Your task to perform on an android device: Go to Google maps Image 0: 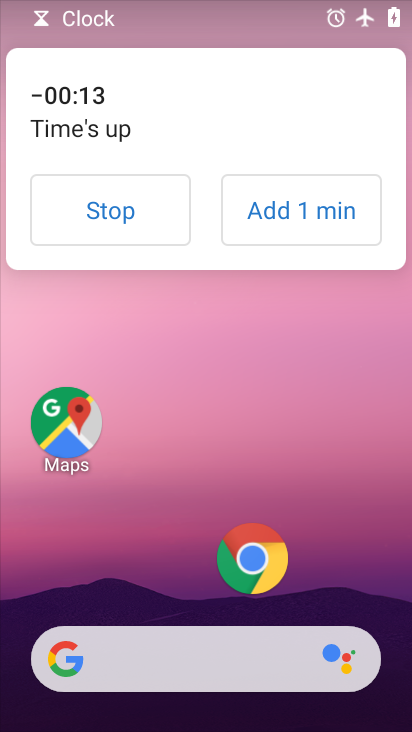
Step 0: press home button
Your task to perform on an android device: Go to Google maps Image 1: 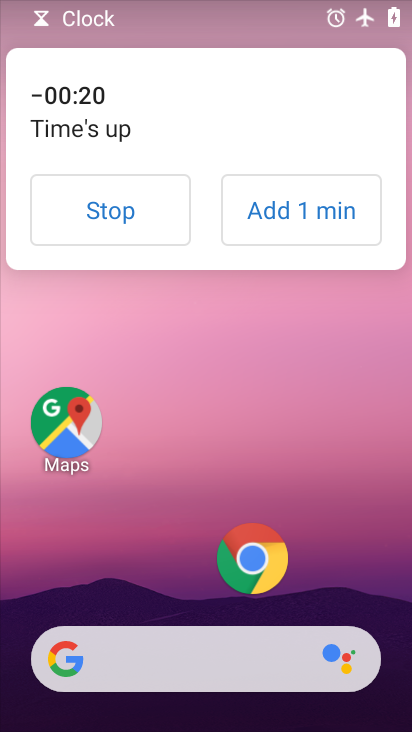
Step 1: click (132, 214)
Your task to perform on an android device: Go to Google maps Image 2: 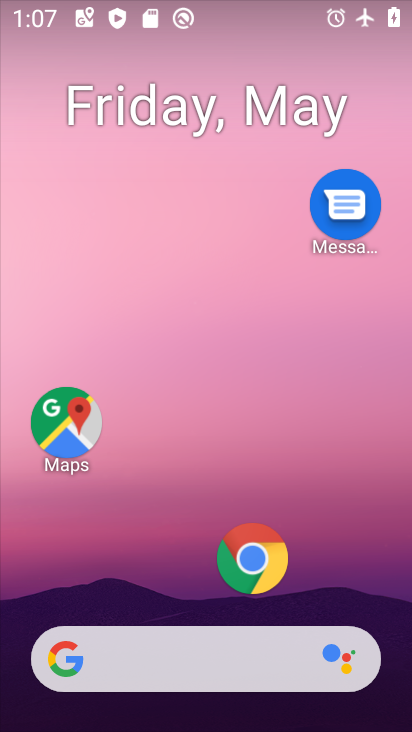
Step 2: drag from (195, 624) to (172, 258)
Your task to perform on an android device: Go to Google maps Image 3: 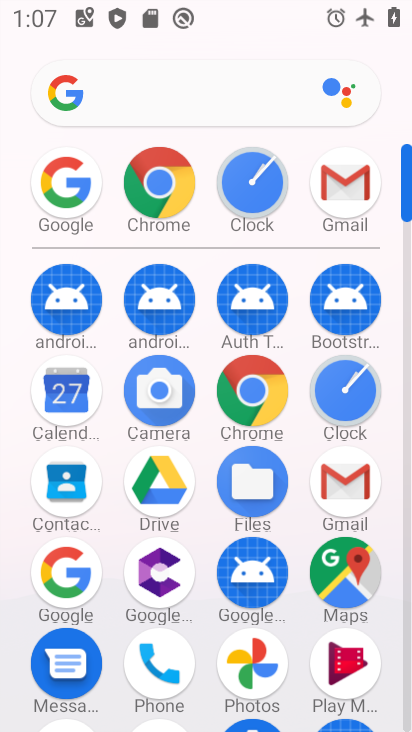
Step 3: click (358, 593)
Your task to perform on an android device: Go to Google maps Image 4: 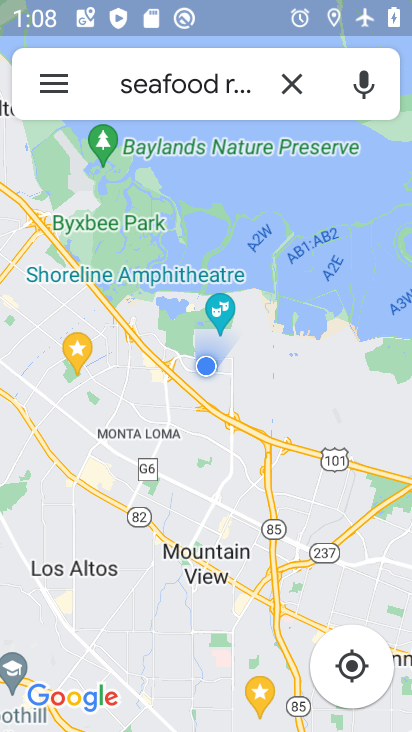
Step 4: task complete